Your task to perform on an android device: delete the emails in spam in the gmail app Image 0: 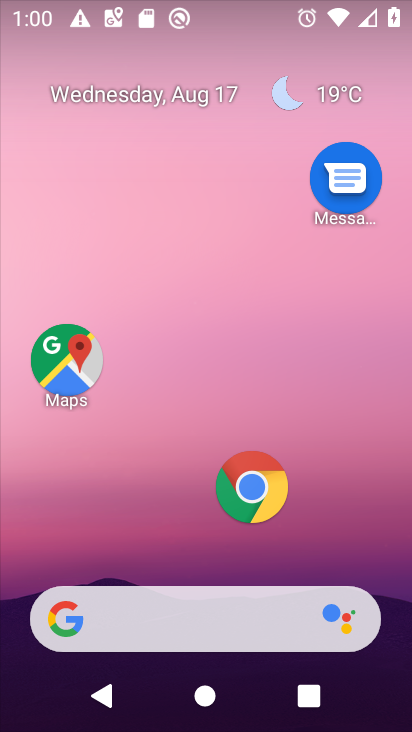
Step 0: drag from (143, 544) to (190, 27)
Your task to perform on an android device: delete the emails in spam in the gmail app Image 1: 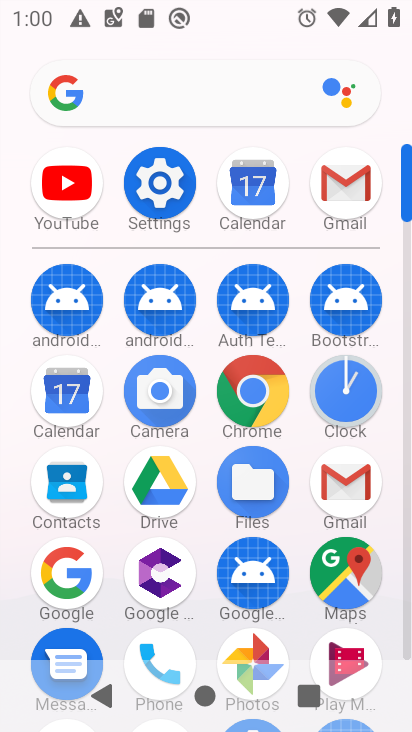
Step 1: click (352, 179)
Your task to perform on an android device: delete the emails in spam in the gmail app Image 2: 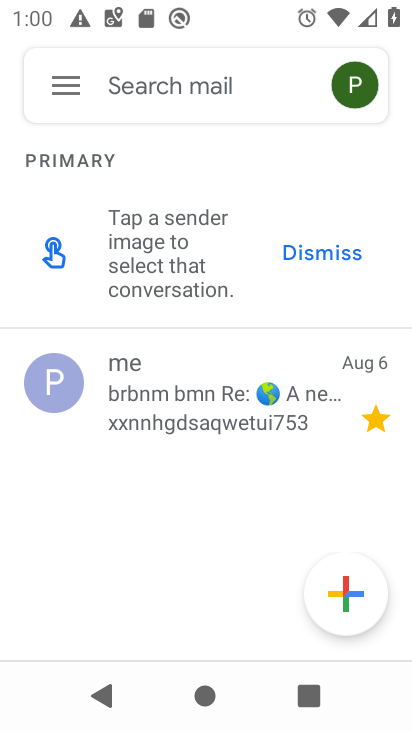
Step 2: click (75, 88)
Your task to perform on an android device: delete the emails in spam in the gmail app Image 3: 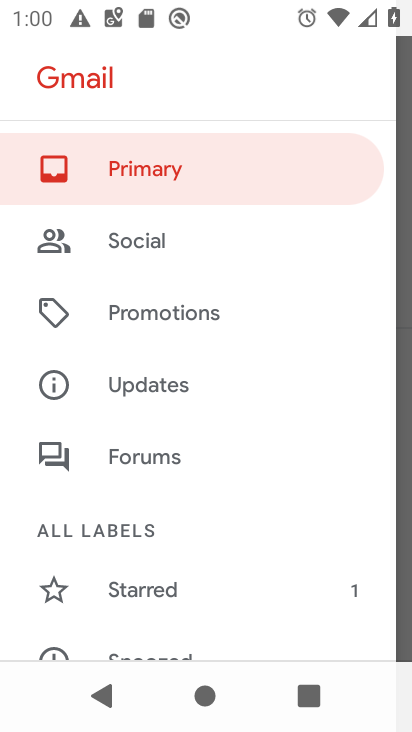
Step 3: drag from (193, 590) to (257, 132)
Your task to perform on an android device: delete the emails in spam in the gmail app Image 4: 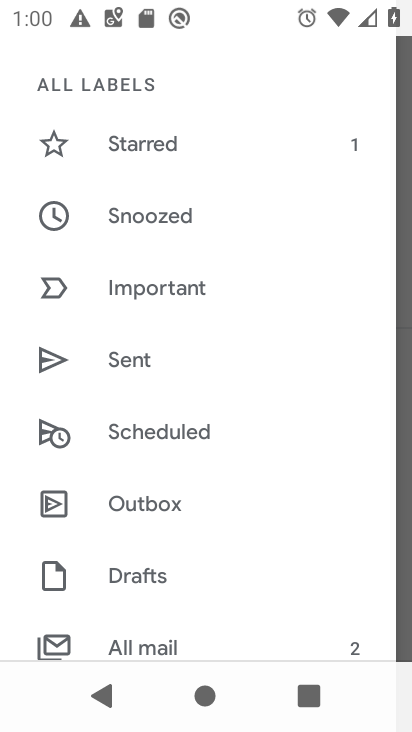
Step 4: drag from (184, 620) to (233, 199)
Your task to perform on an android device: delete the emails in spam in the gmail app Image 5: 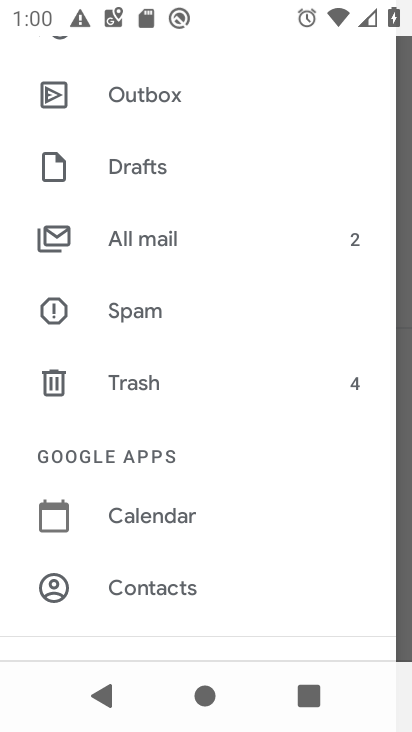
Step 5: click (149, 309)
Your task to perform on an android device: delete the emails in spam in the gmail app Image 6: 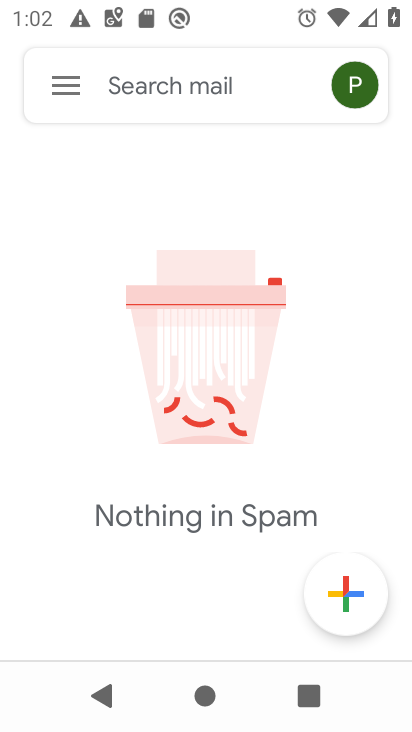
Step 6: task complete